Your task to perform on an android device: delete location history Image 0: 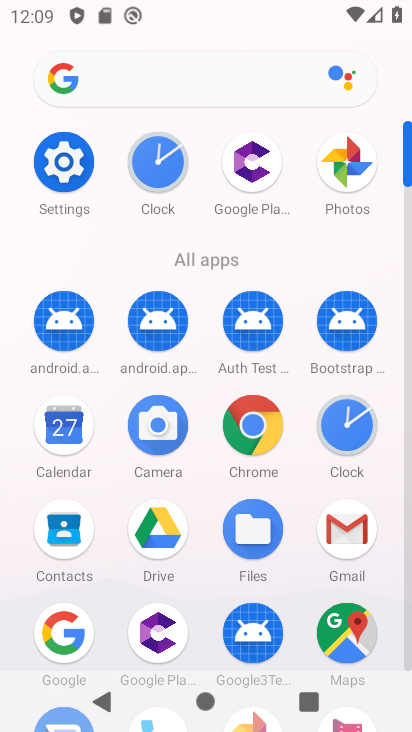
Step 0: click (59, 166)
Your task to perform on an android device: delete location history Image 1: 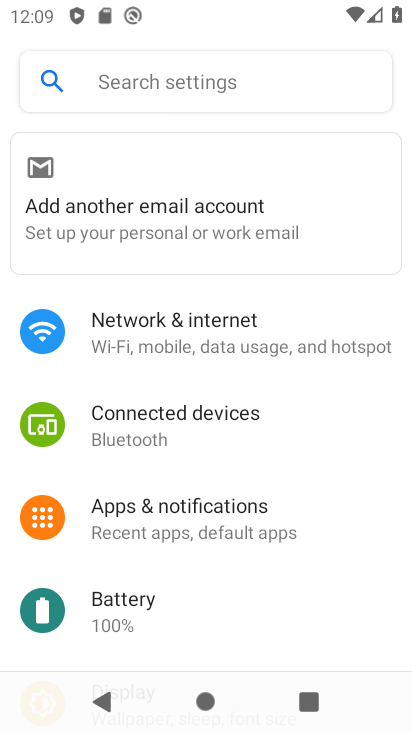
Step 1: press home button
Your task to perform on an android device: delete location history Image 2: 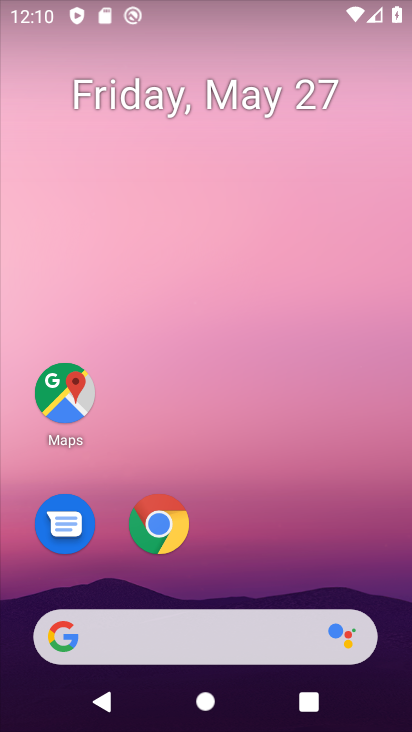
Step 2: click (68, 395)
Your task to perform on an android device: delete location history Image 3: 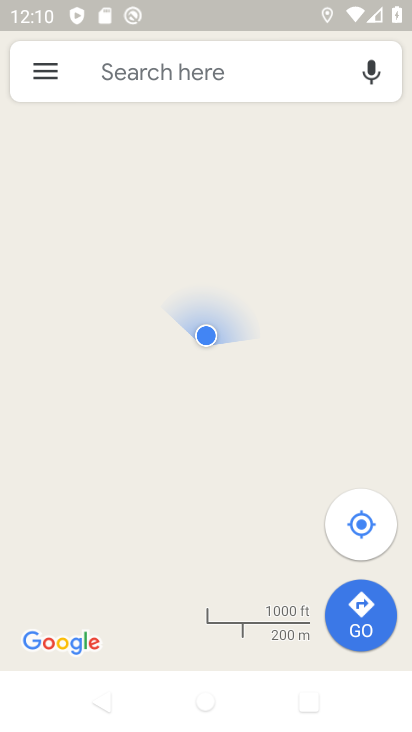
Step 3: click (47, 73)
Your task to perform on an android device: delete location history Image 4: 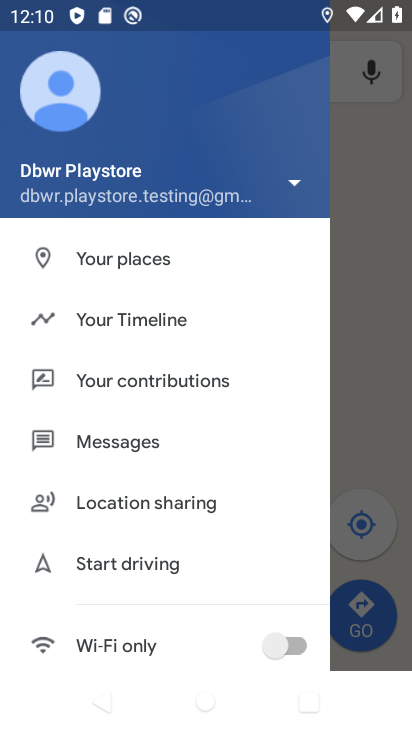
Step 4: click (129, 313)
Your task to perform on an android device: delete location history Image 5: 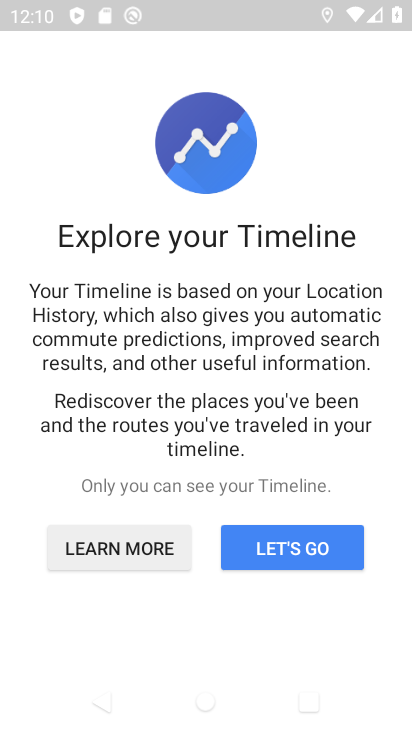
Step 5: click (298, 548)
Your task to perform on an android device: delete location history Image 6: 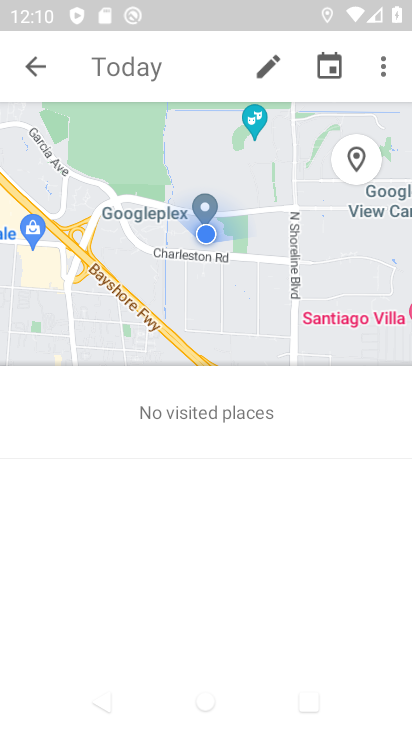
Step 6: click (381, 65)
Your task to perform on an android device: delete location history Image 7: 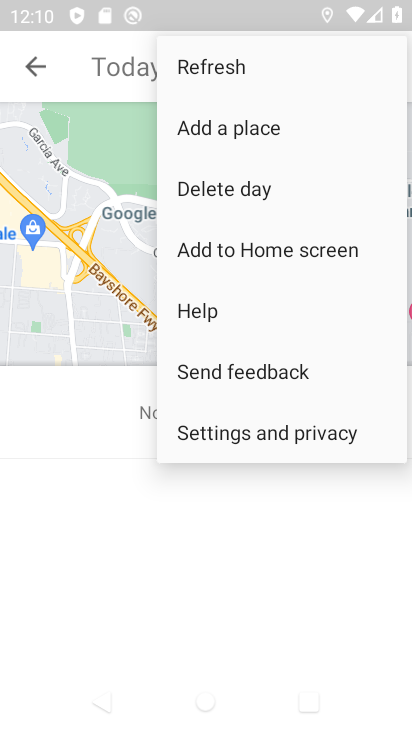
Step 7: click (283, 424)
Your task to perform on an android device: delete location history Image 8: 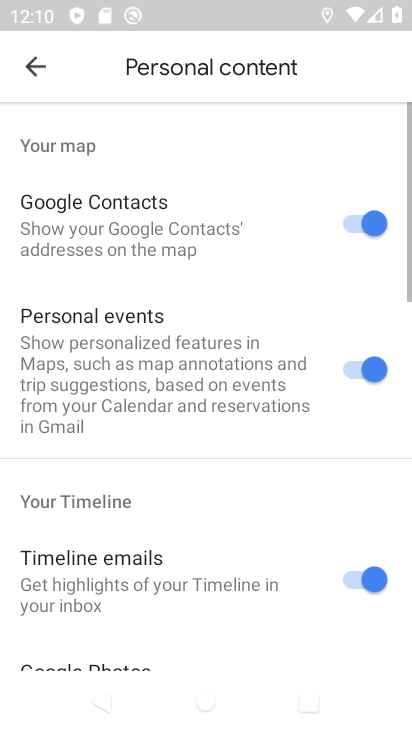
Step 8: drag from (245, 525) to (252, 126)
Your task to perform on an android device: delete location history Image 9: 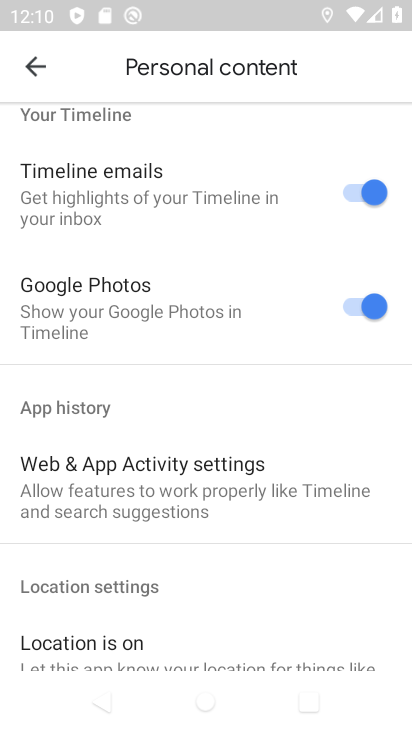
Step 9: drag from (235, 544) to (218, 132)
Your task to perform on an android device: delete location history Image 10: 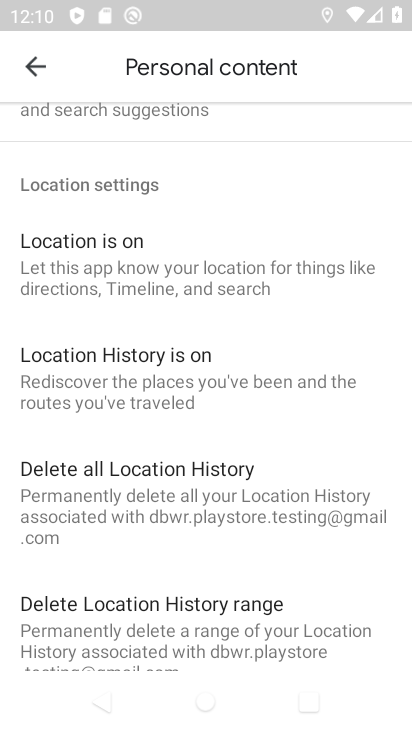
Step 10: click (205, 484)
Your task to perform on an android device: delete location history Image 11: 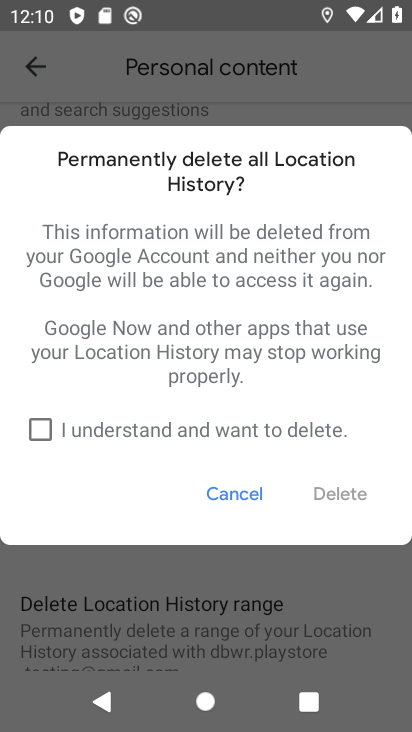
Step 11: click (45, 425)
Your task to perform on an android device: delete location history Image 12: 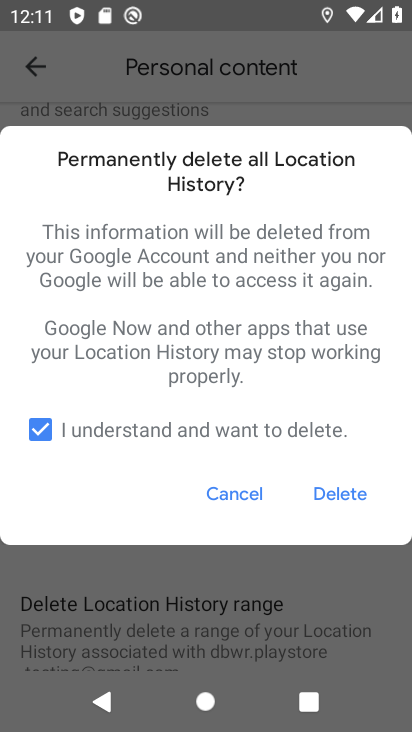
Step 12: click (329, 484)
Your task to perform on an android device: delete location history Image 13: 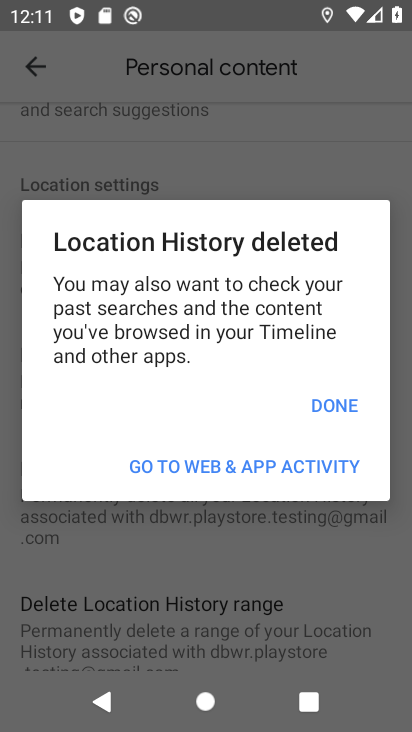
Step 13: click (331, 398)
Your task to perform on an android device: delete location history Image 14: 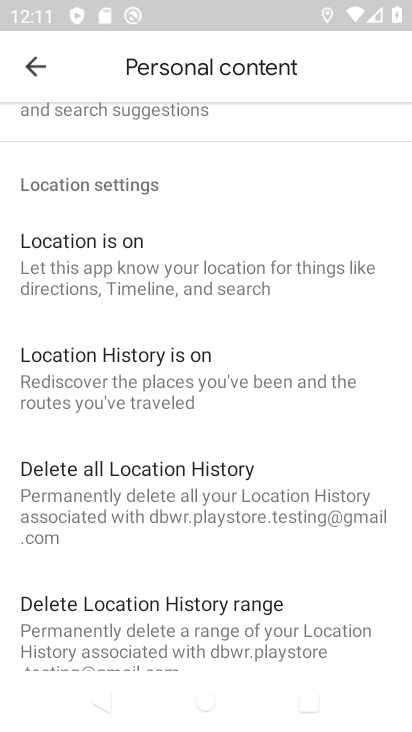
Step 14: task complete